Your task to perform on an android device: uninstall "NewsBreak: Local News & Alerts" Image 0: 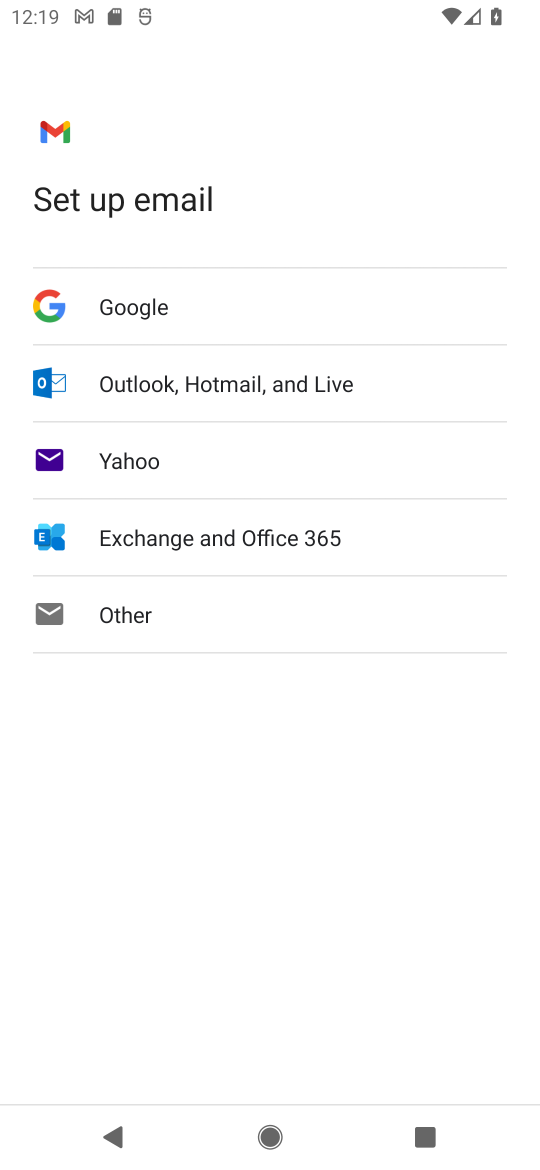
Step 0: press home button
Your task to perform on an android device: uninstall "NewsBreak: Local News & Alerts" Image 1: 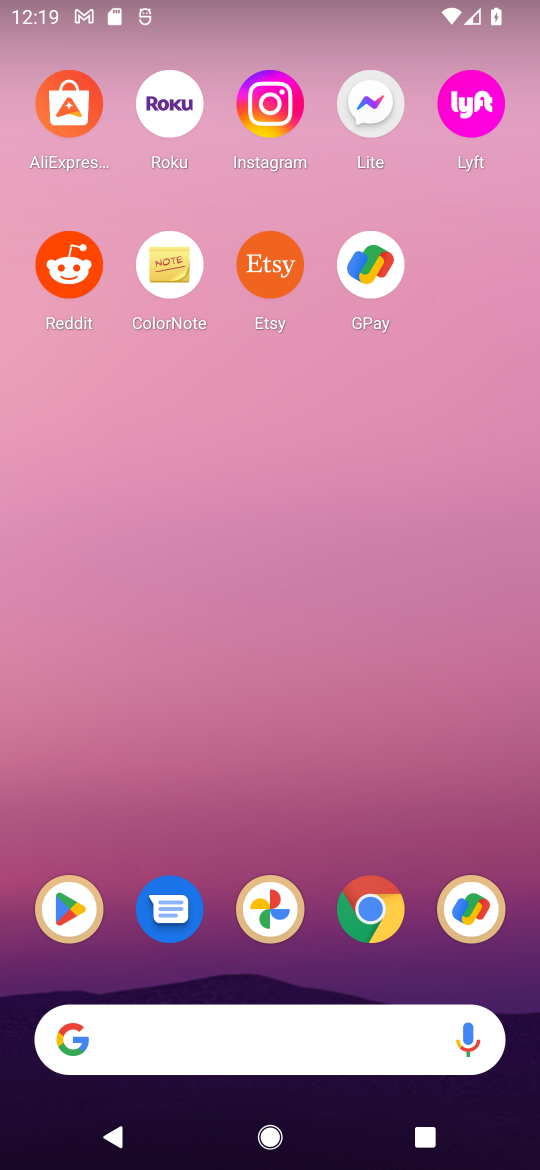
Step 1: click (68, 908)
Your task to perform on an android device: uninstall "NewsBreak: Local News & Alerts" Image 2: 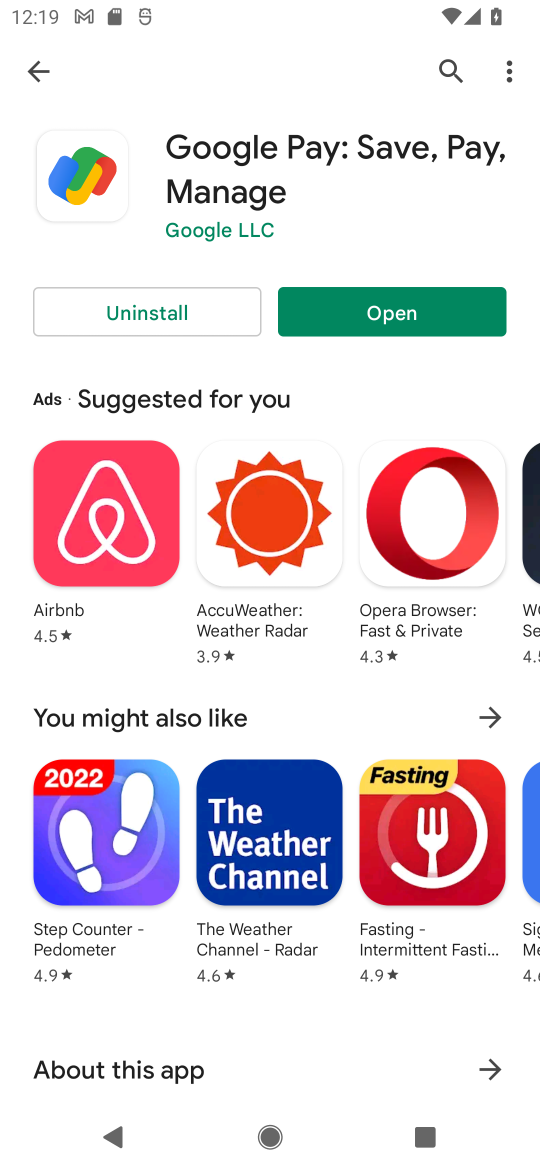
Step 2: click (37, 65)
Your task to perform on an android device: uninstall "NewsBreak: Local News & Alerts" Image 3: 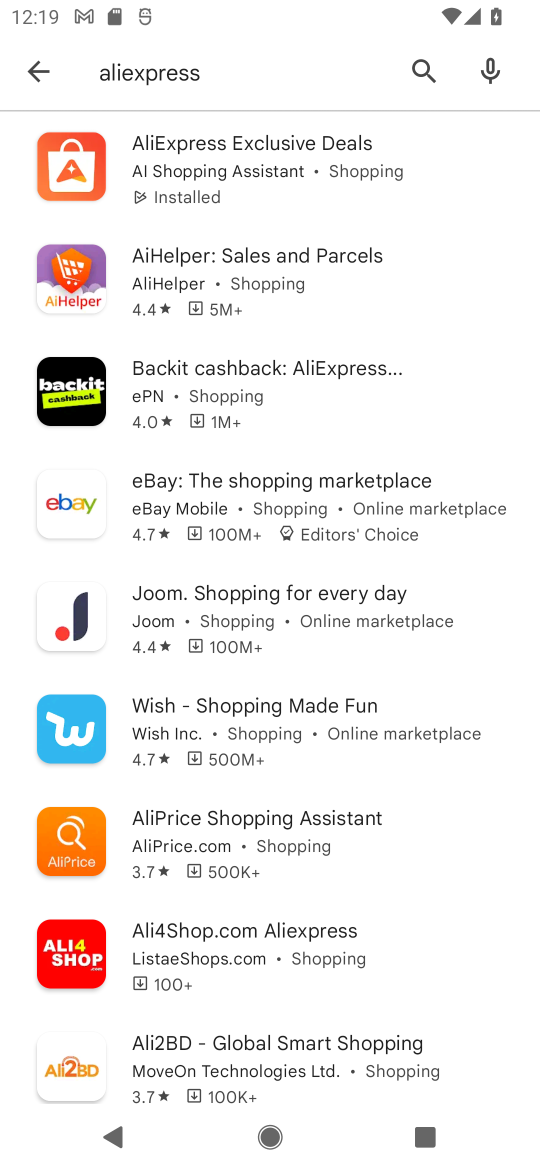
Step 3: click (423, 64)
Your task to perform on an android device: uninstall "NewsBreak: Local News & Alerts" Image 4: 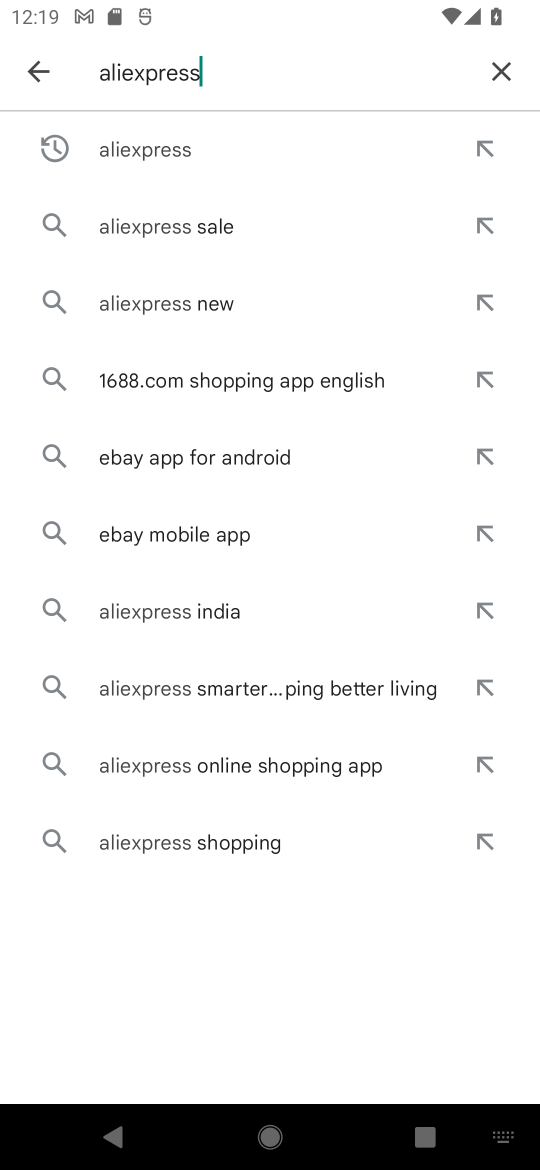
Step 4: click (492, 72)
Your task to perform on an android device: uninstall "NewsBreak: Local News & Alerts" Image 5: 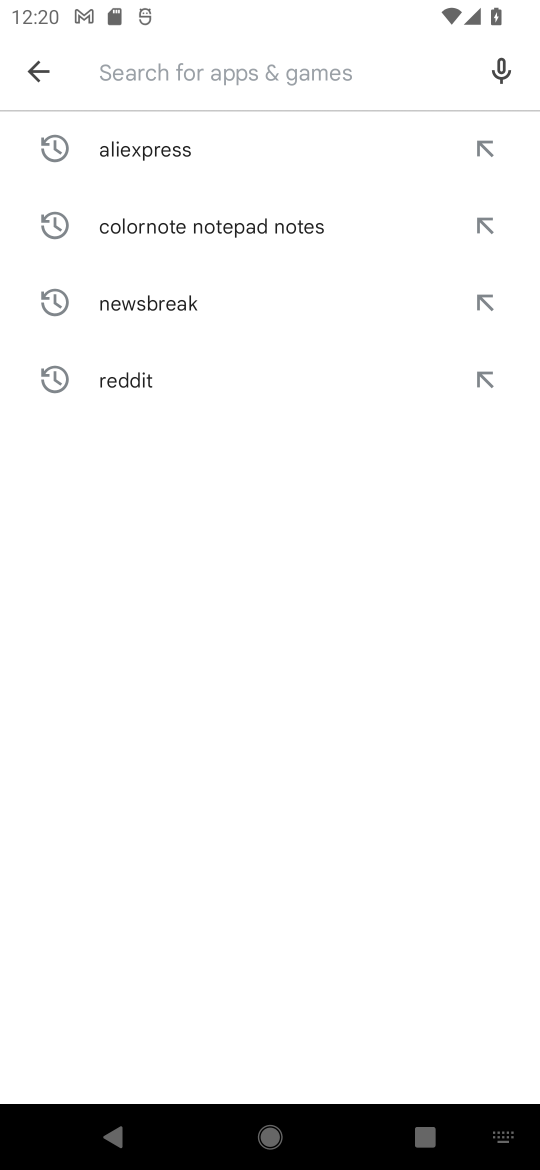
Step 5: type "NewsBreak: Local News & Alerts""
Your task to perform on an android device: uninstall "NewsBreak: Local News & Alerts" Image 6: 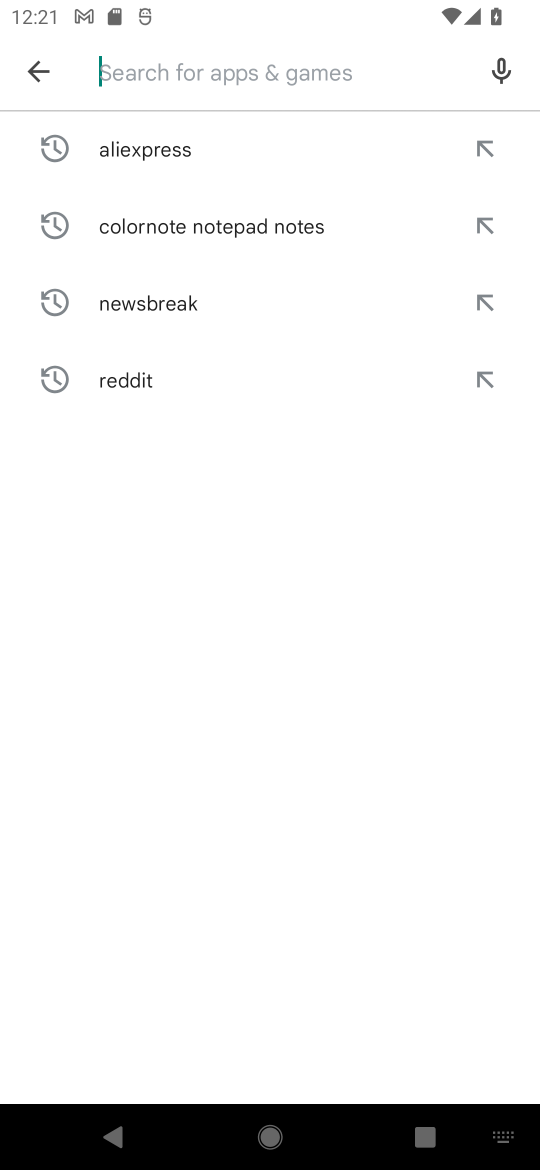
Step 6: type "NewsBreak "
Your task to perform on an android device: uninstall "NewsBreak: Local News & Alerts" Image 7: 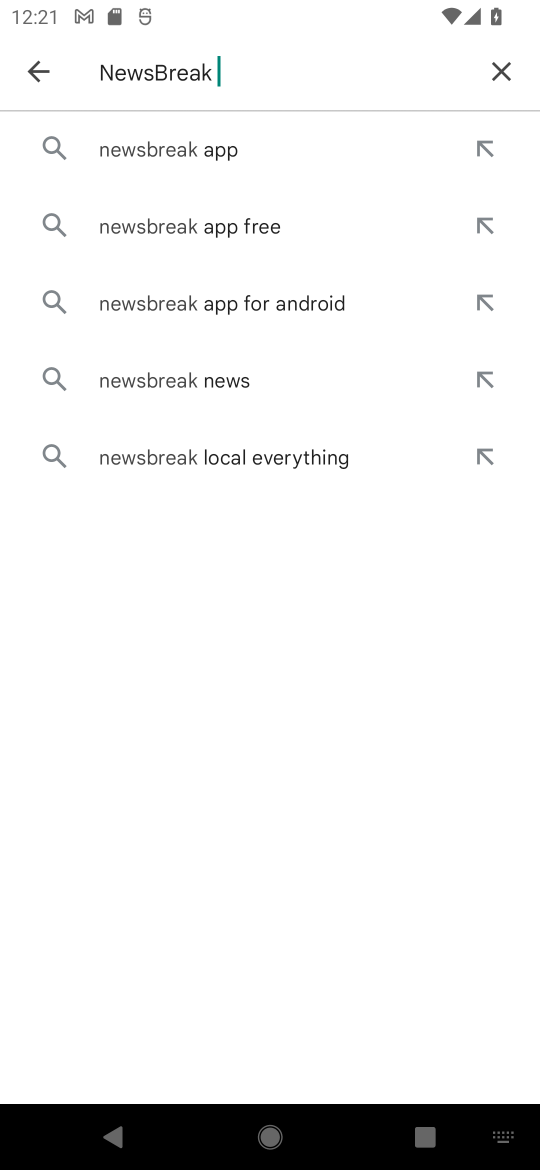
Step 7: click (196, 147)
Your task to perform on an android device: uninstall "NewsBreak: Local News & Alerts" Image 8: 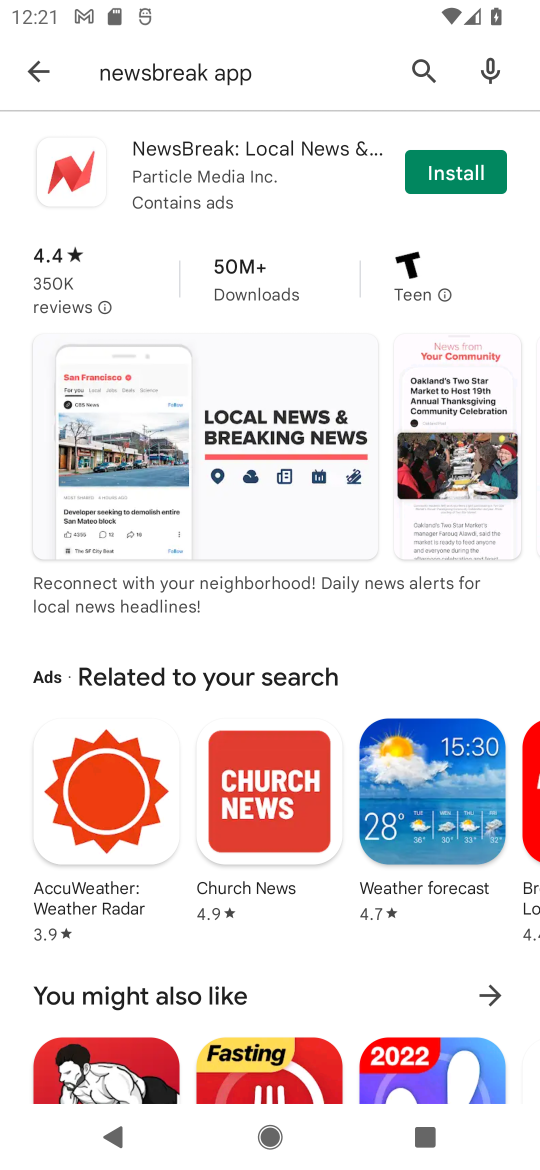
Step 8: click (491, 161)
Your task to perform on an android device: uninstall "NewsBreak: Local News & Alerts" Image 9: 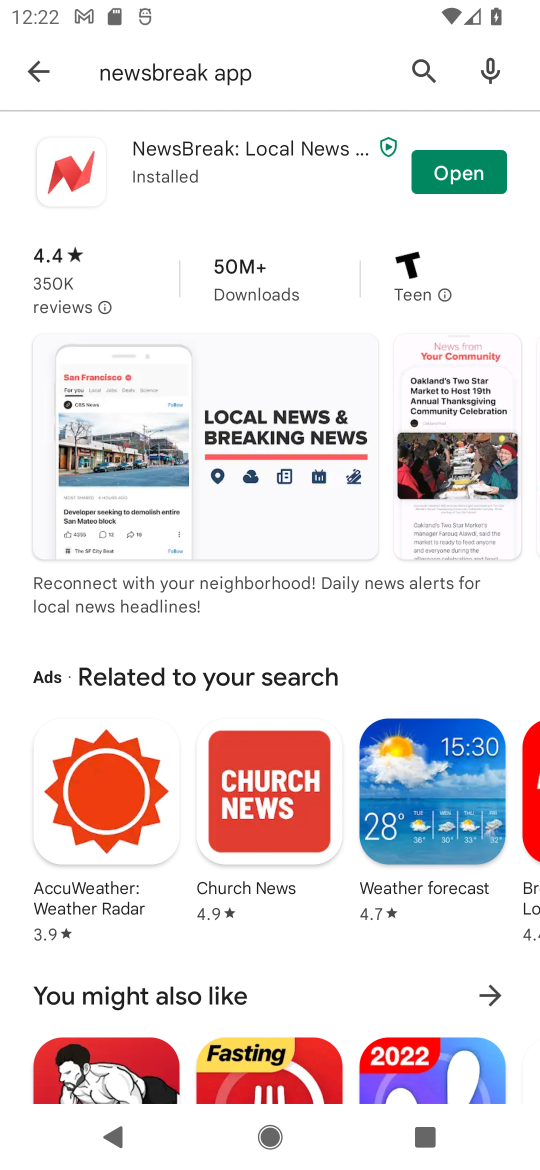
Step 9: click (478, 176)
Your task to perform on an android device: uninstall "NewsBreak: Local News & Alerts" Image 10: 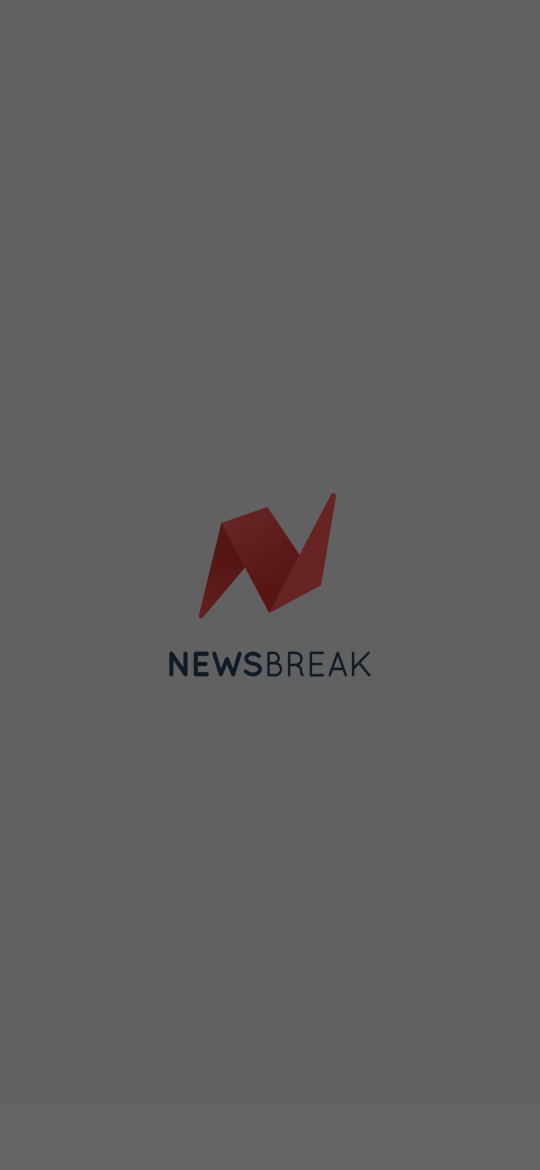
Step 10: task complete